Your task to perform on an android device: Open wifi settings Image 0: 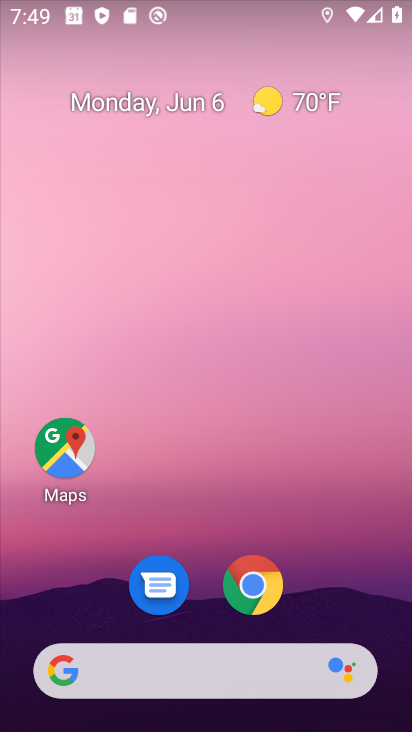
Step 0: drag from (209, 504) to (227, 13)
Your task to perform on an android device: Open wifi settings Image 1: 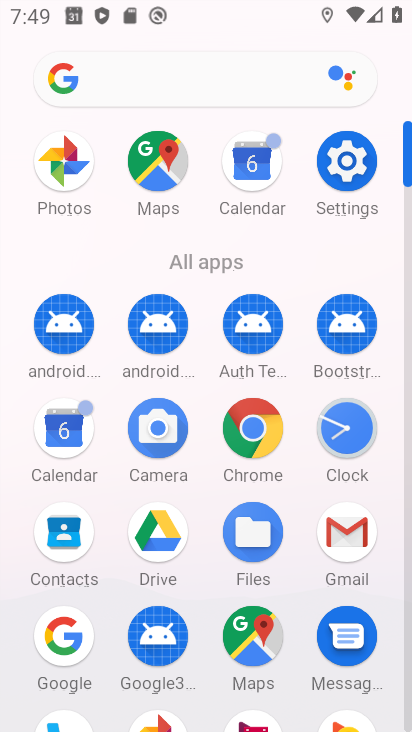
Step 1: click (337, 162)
Your task to perform on an android device: Open wifi settings Image 2: 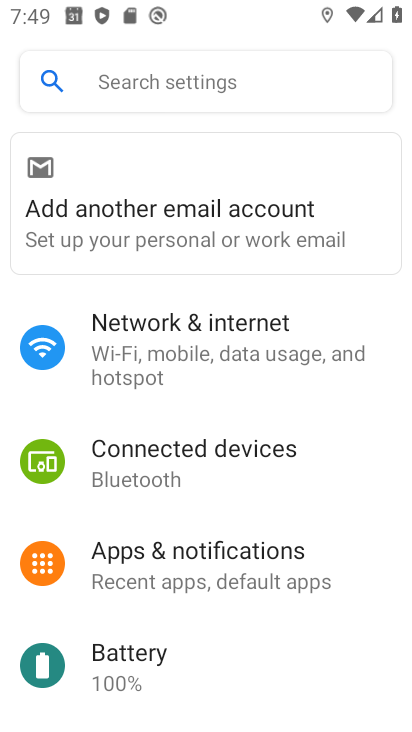
Step 2: click (256, 346)
Your task to perform on an android device: Open wifi settings Image 3: 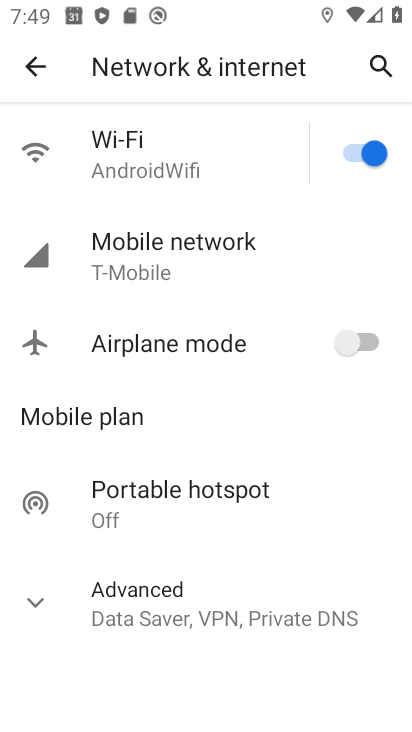
Step 3: click (194, 151)
Your task to perform on an android device: Open wifi settings Image 4: 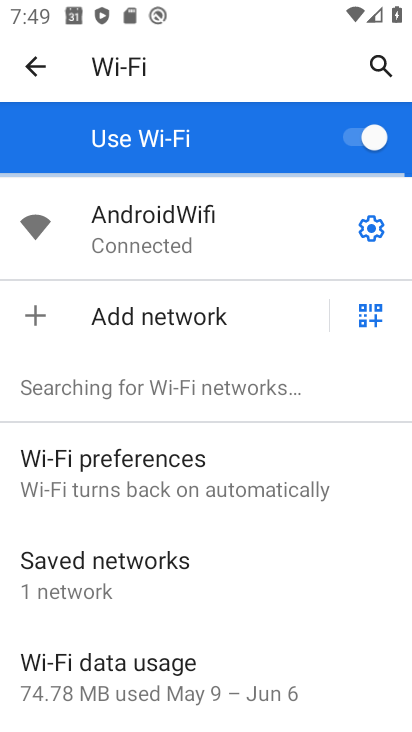
Step 4: task complete